Your task to perform on an android device: Do I have any events this weekend? Image 0: 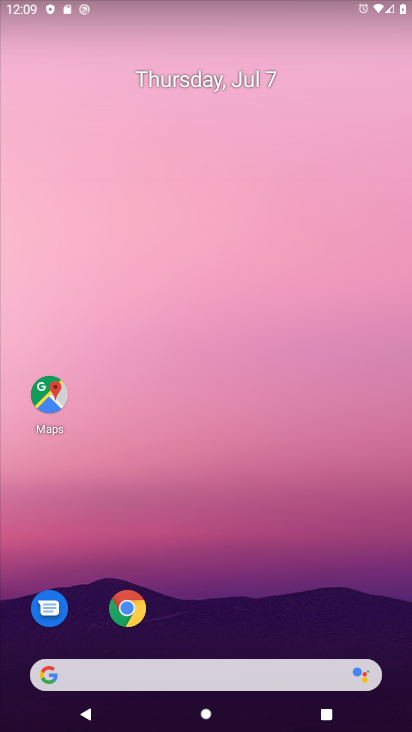
Step 0: drag from (221, 623) to (246, 48)
Your task to perform on an android device: Do I have any events this weekend? Image 1: 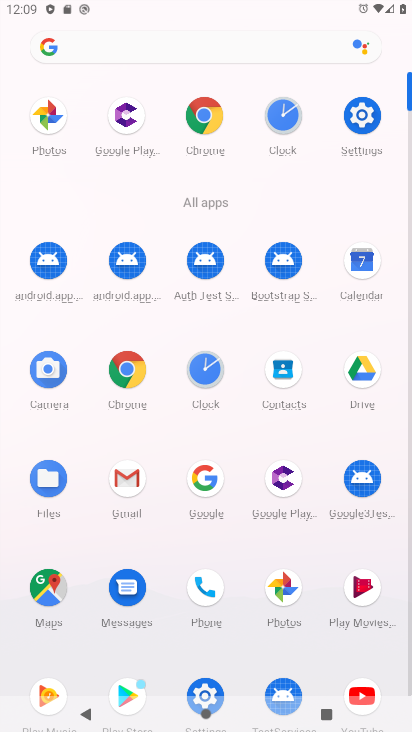
Step 1: click (356, 272)
Your task to perform on an android device: Do I have any events this weekend? Image 2: 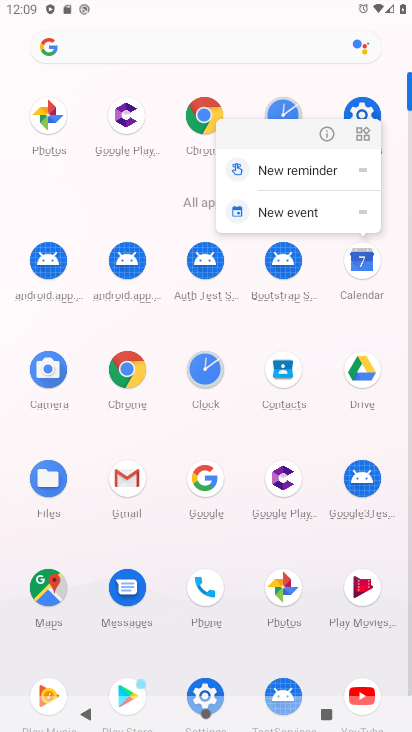
Step 2: click (365, 264)
Your task to perform on an android device: Do I have any events this weekend? Image 3: 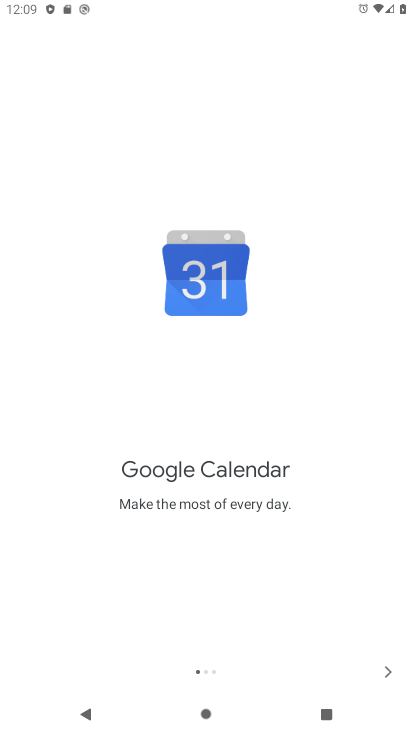
Step 3: click (388, 665)
Your task to perform on an android device: Do I have any events this weekend? Image 4: 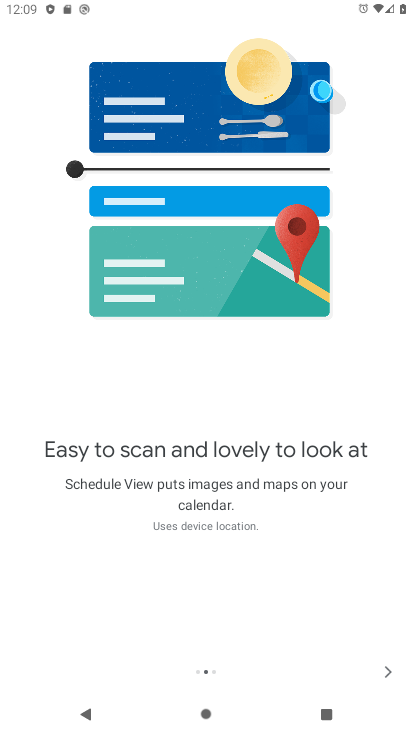
Step 4: click (387, 671)
Your task to perform on an android device: Do I have any events this weekend? Image 5: 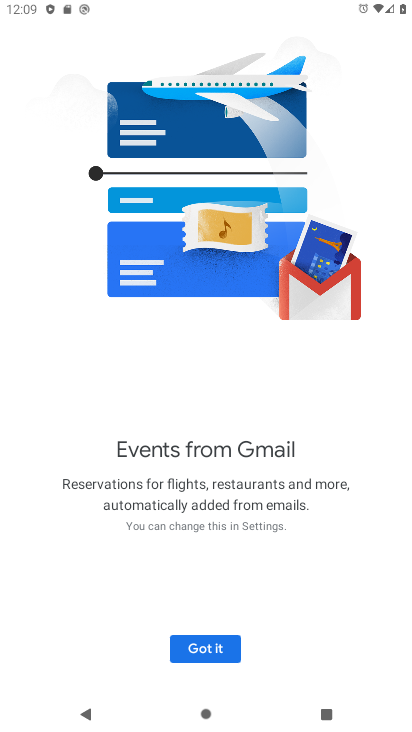
Step 5: click (233, 642)
Your task to perform on an android device: Do I have any events this weekend? Image 6: 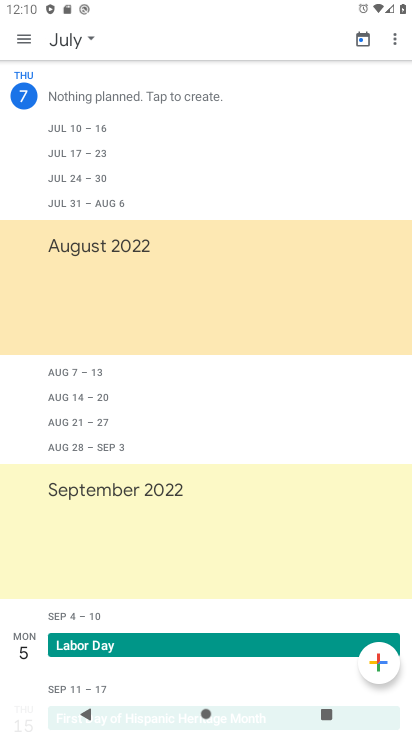
Step 6: drag from (166, 307) to (161, 487)
Your task to perform on an android device: Do I have any events this weekend? Image 7: 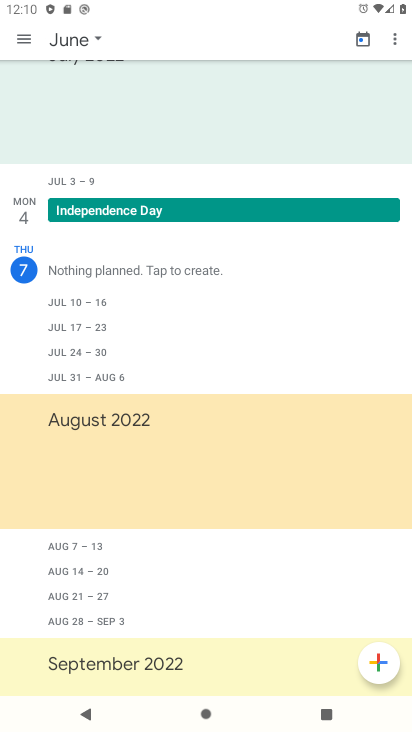
Step 7: click (88, 38)
Your task to perform on an android device: Do I have any events this weekend? Image 8: 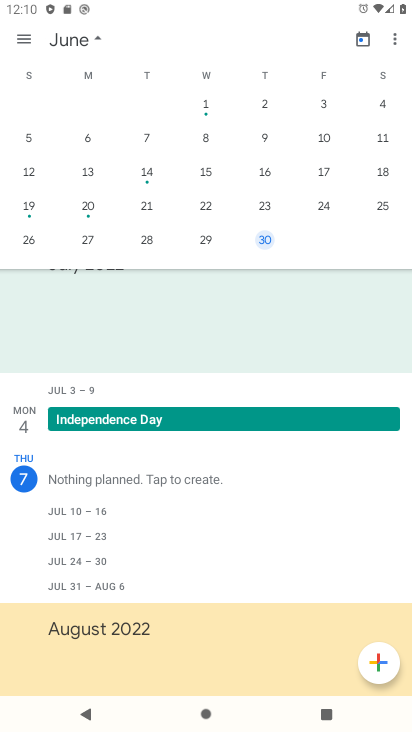
Step 8: drag from (375, 166) to (9, 174)
Your task to perform on an android device: Do I have any events this weekend? Image 9: 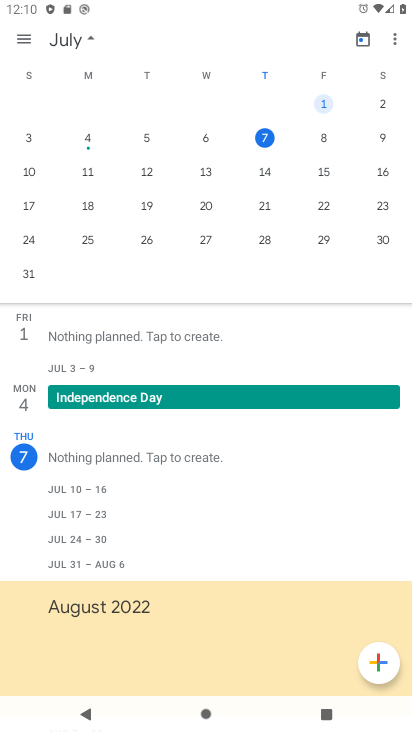
Step 9: click (268, 134)
Your task to perform on an android device: Do I have any events this weekend? Image 10: 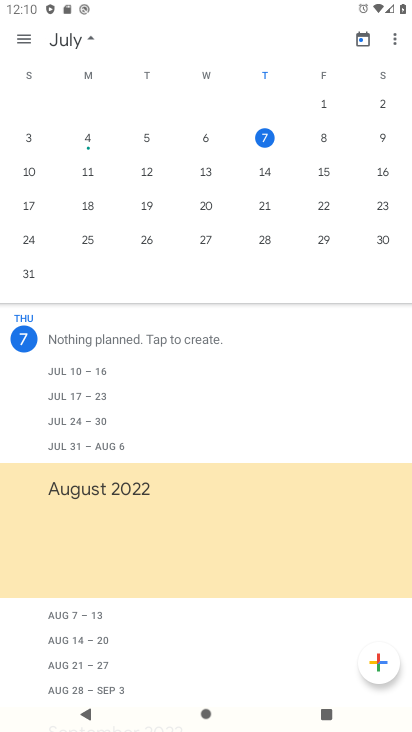
Step 10: click (28, 39)
Your task to perform on an android device: Do I have any events this weekend? Image 11: 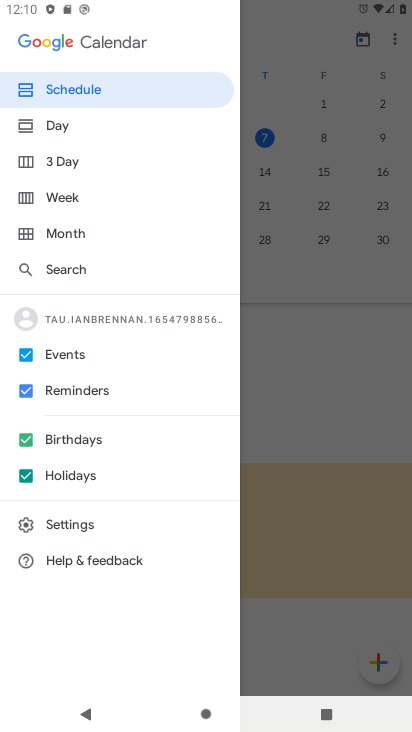
Step 11: click (66, 348)
Your task to perform on an android device: Do I have any events this weekend? Image 12: 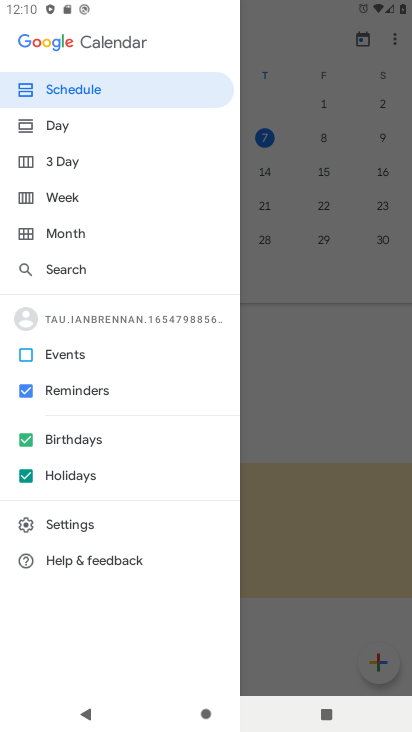
Step 12: click (66, 348)
Your task to perform on an android device: Do I have any events this weekend? Image 13: 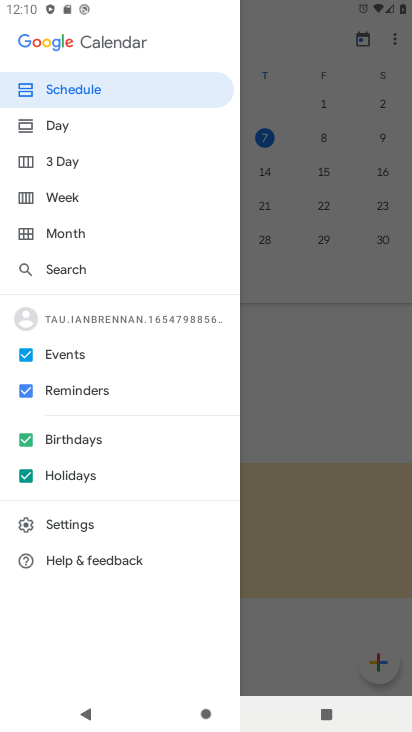
Step 13: click (329, 345)
Your task to perform on an android device: Do I have any events this weekend? Image 14: 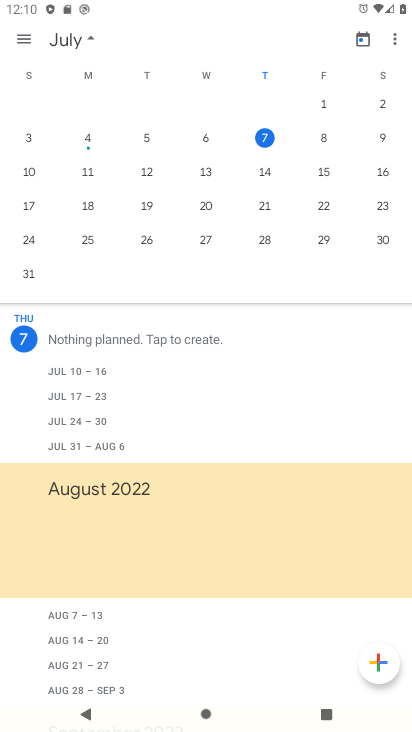
Step 14: click (26, 35)
Your task to perform on an android device: Do I have any events this weekend? Image 15: 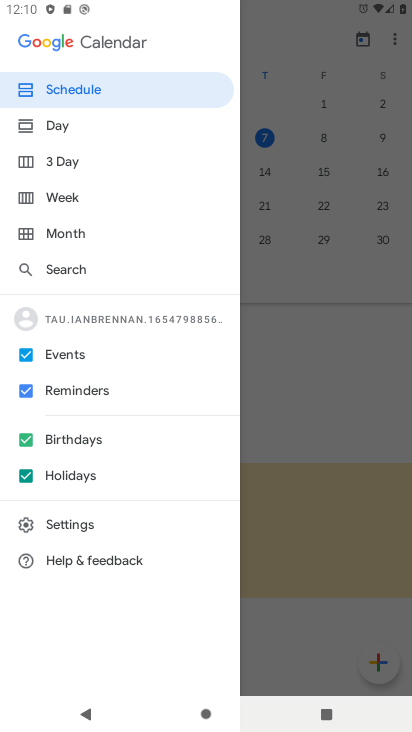
Step 15: click (89, 119)
Your task to perform on an android device: Do I have any events this weekend? Image 16: 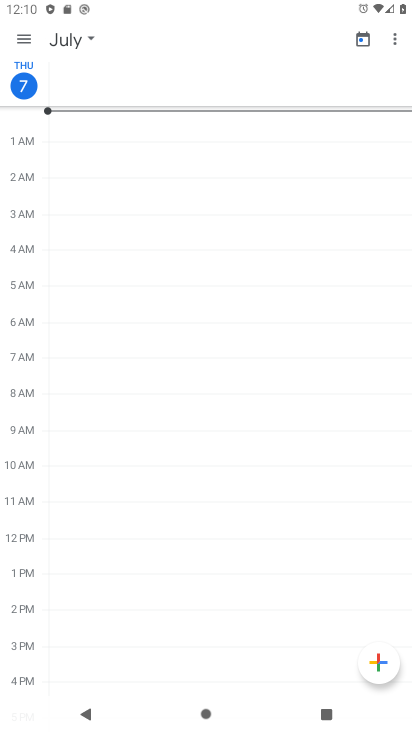
Step 16: click (28, 39)
Your task to perform on an android device: Do I have any events this weekend? Image 17: 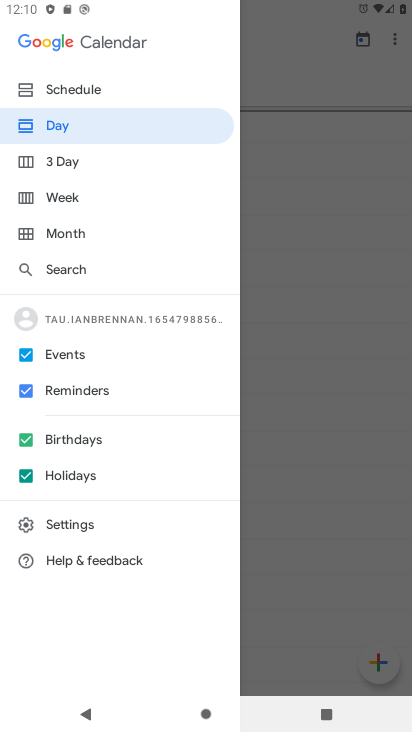
Step 17: click (80, 159)
Your task to perform on an android device: Do I have any events this weekend? Image 18: 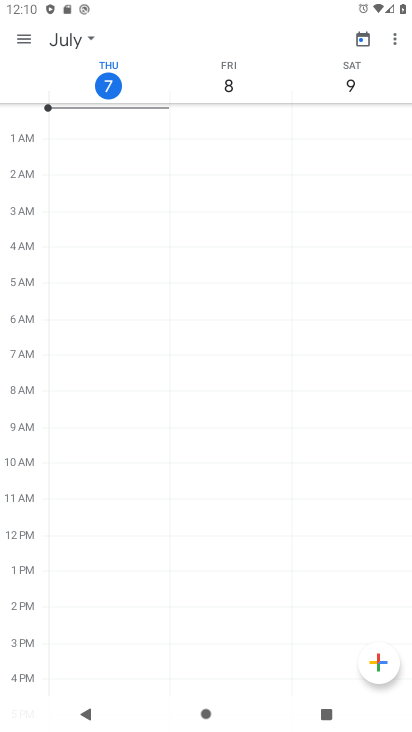
Step 18: click (26, 40)
Your task to perform on an android device: Do I have any events this weekend? Image 19: 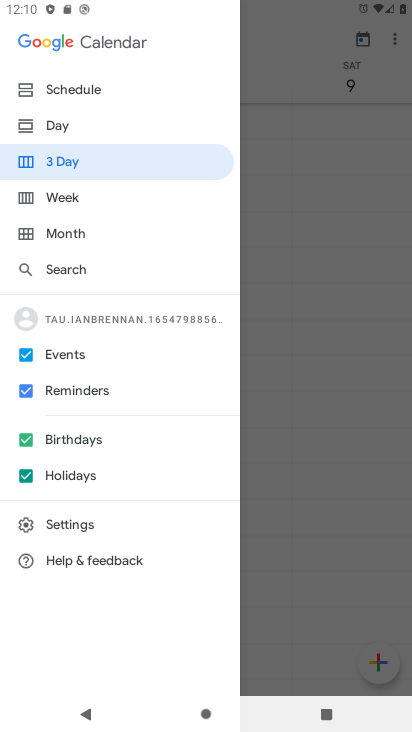
Step 19: click (69, 92)
Your task to perform on an android device: Do I have any events this weekend? Image 20: 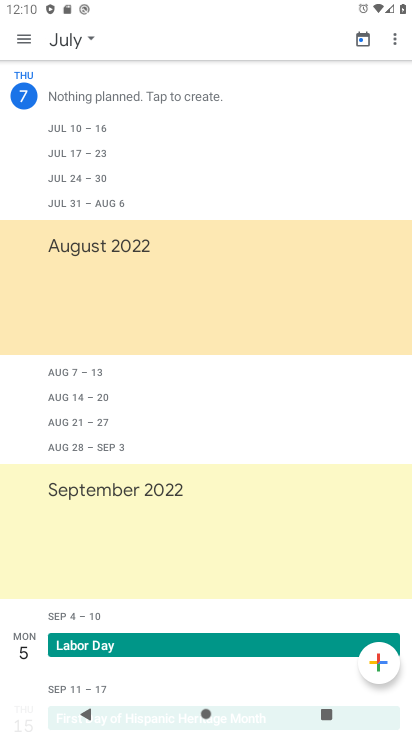
Step 20: task complete